Your task to perform on an android device: Is it going to rain this weekend? Image 0: 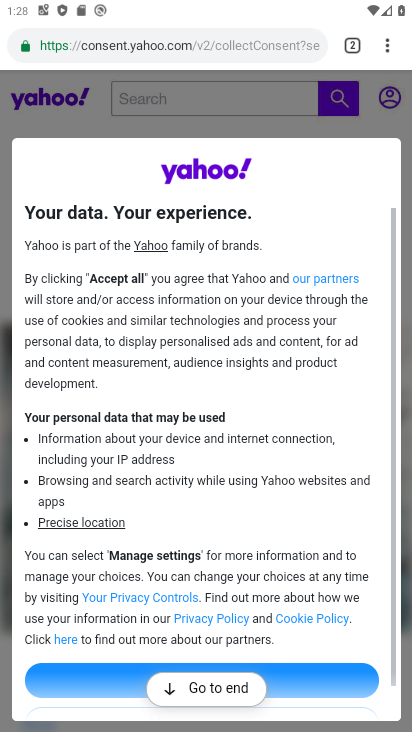
Step 0: press home button
Your task to perform on an android device: Is it going to rain this weekend? Image 1: 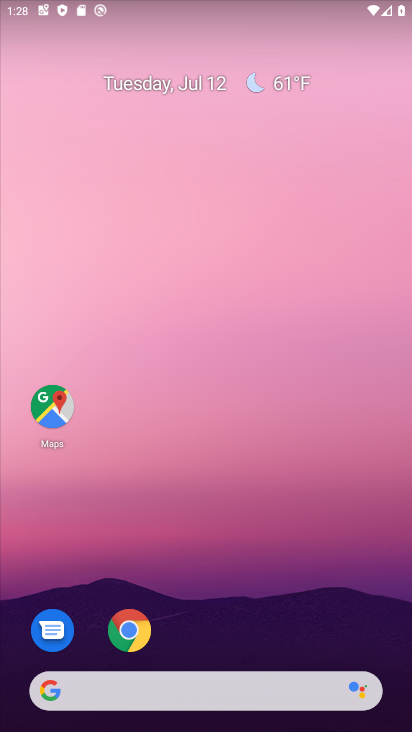
Step 1: drag from (209, 625) to (237, 130)
Your task to perform on an android device: Is it going to rain this weekend? Image 2: 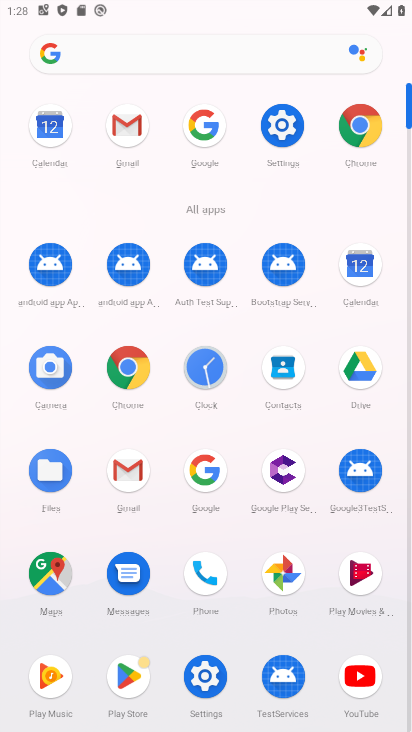
Step 2: click (208, 135)
Your task to perform on an android device: Is it going to rain this weekend? Image 3: 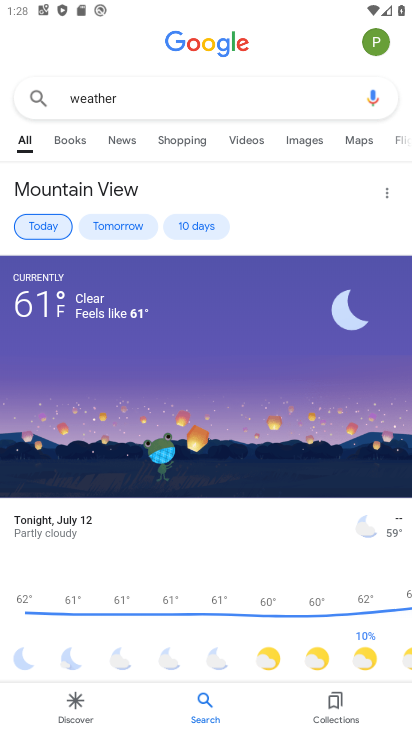
Step 3: drag from (250, 579) to (265, 307)
Your task to perform on an android device: Is it going to rain this weekend? Image 4: 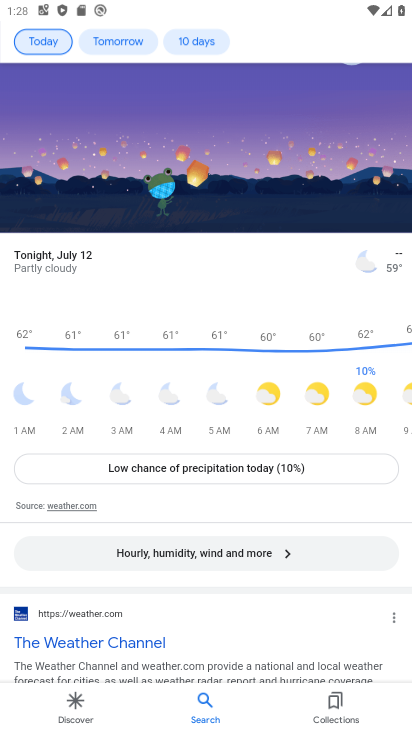
Step 4: drag from (255, 191) to (255, 529)
Your task to perform on an android device: Is it going to rain this weekend? Image 5: 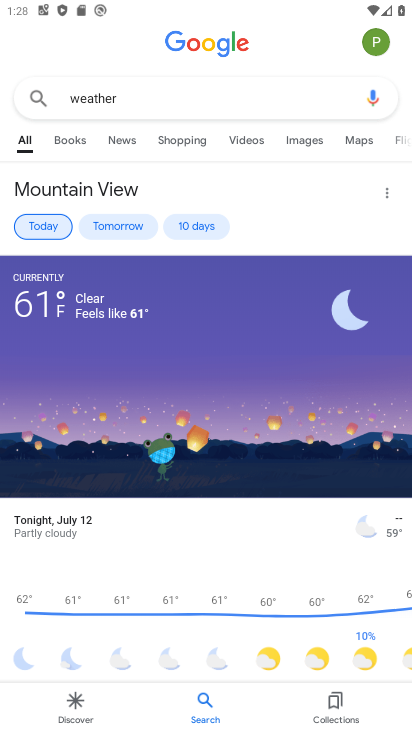
Step 5: click (197, 227)
Your task to perform on an android device: Is it going to rain this weekend? Image 6: 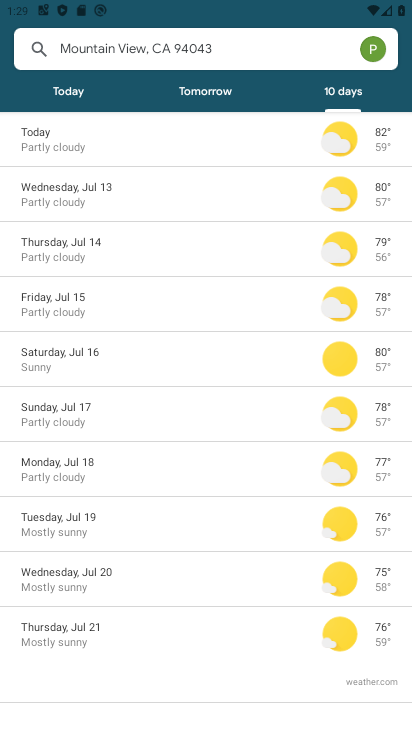
Step 6: task complete